Your task to perform on an android device: Open Google Maps Image 0: 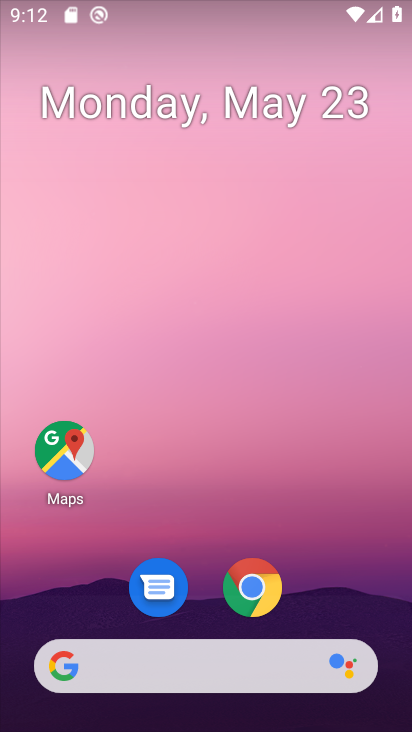
Step 0: drag from (325, 591) to (125, 6)
Your task to perform on an android device: Open Google Maps Image 1: 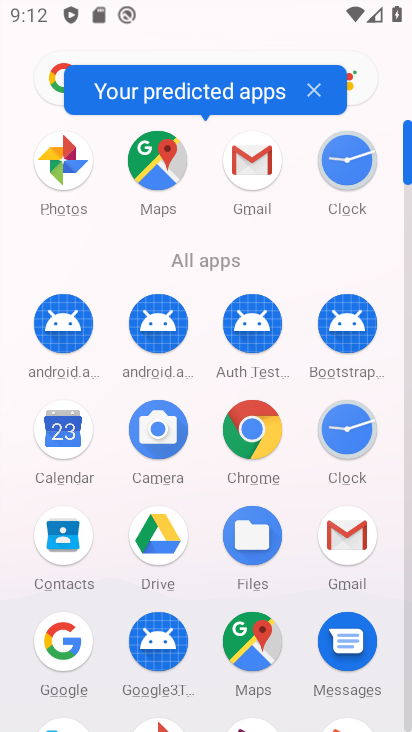
Step 1: click (131, 172)
Your task to perform on an android device: Open Google Maps Image 2: 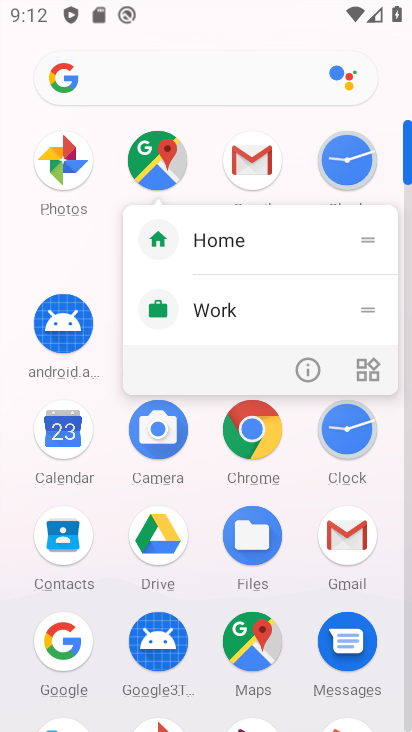
Step 2: click (154, 179)
Your task to perform on an android device: Open Google Maps Image 3: 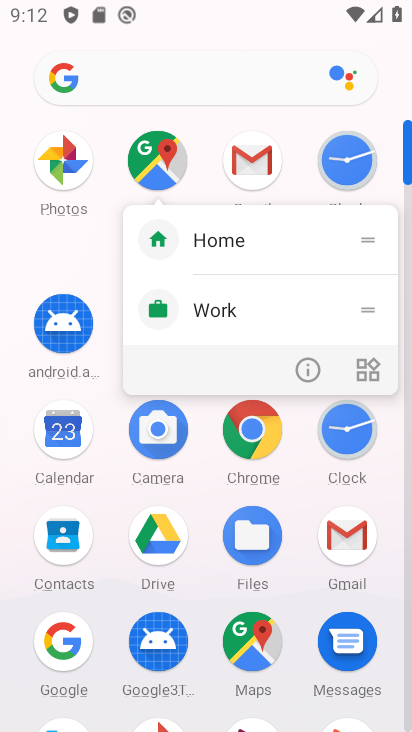
Step 3: click (154, 179)
Your task to perform on an android device: Open Google Maps Image 4: 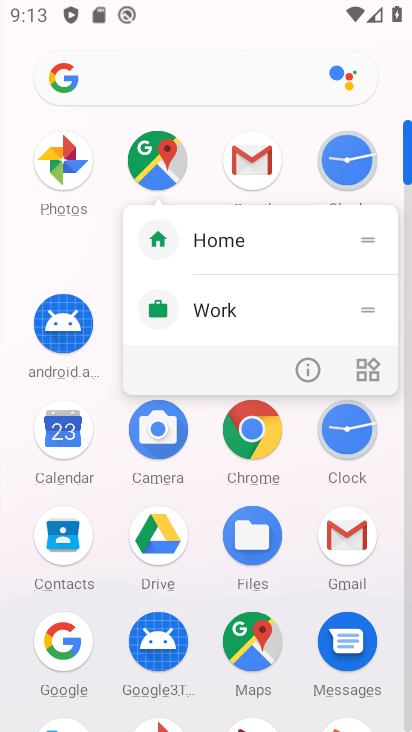
Step 4: click (154, 179)
Your task to perform on an android device: Open Google Maps Image 5: 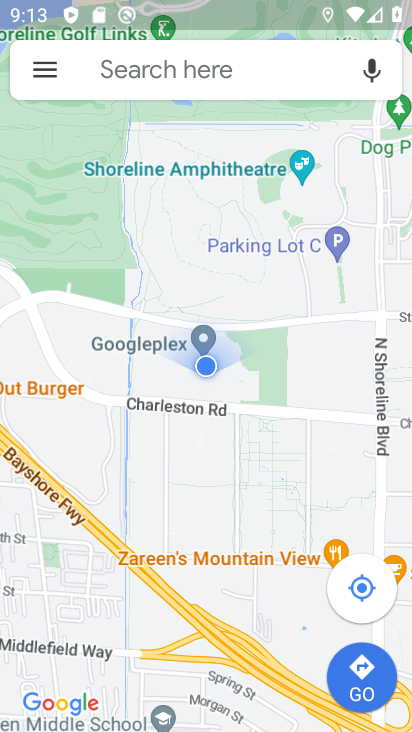
Step 5: task complete